Your task to perform on an android device: Search for energizer triple a on newegg.com, select the first entry, add it to the cart, then select checkout. Image 0: 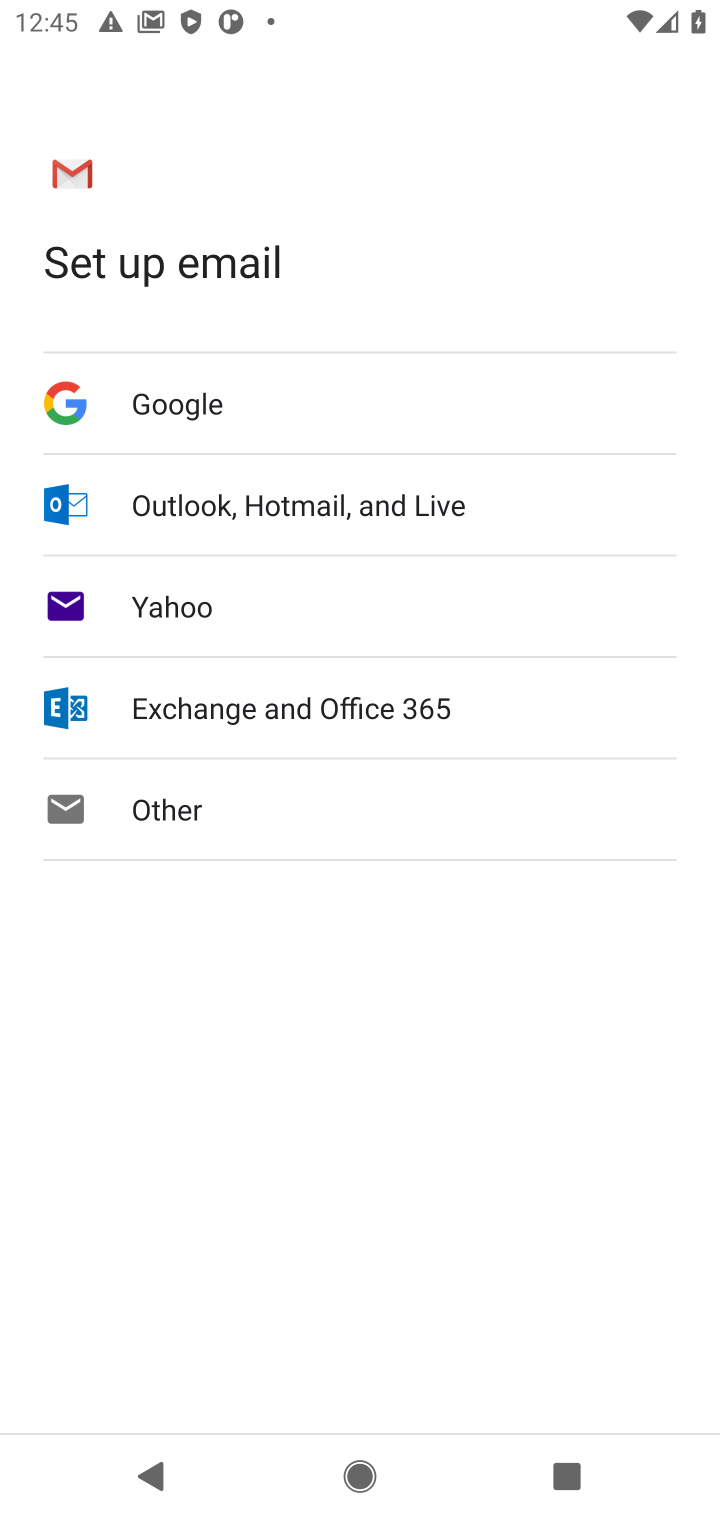
Step 0: task complete